Your task to perform on an android device: Search for a new highlighter Image 0: 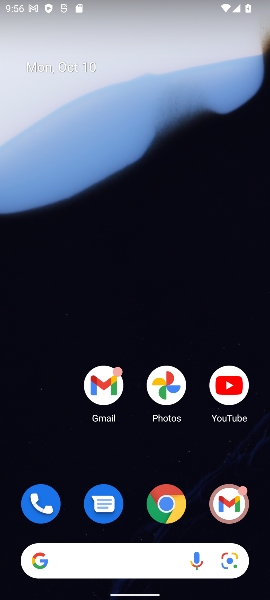
Step 0: click (165, 507)
Your task to perform on an android device: Search for a new highlighter Image 1: 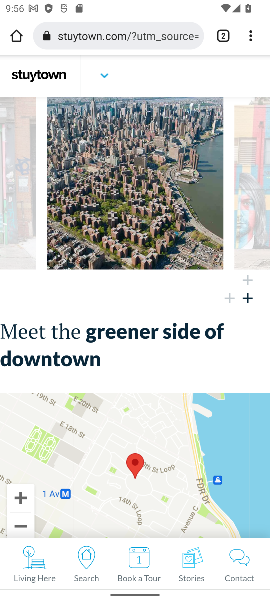
Step 1: click (99, 23)
Your task to perform on an android device: Search for a new highlighter Image 2: 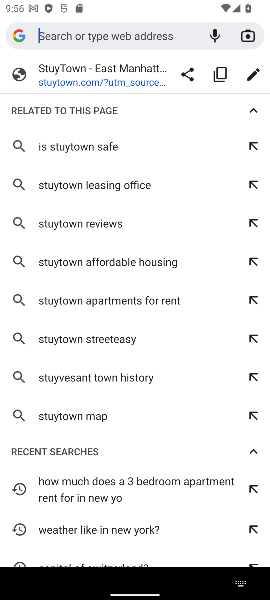
Step 2: type "new highlighter"
Your task to perform on an android device: Search for a new highlighter Image 3: 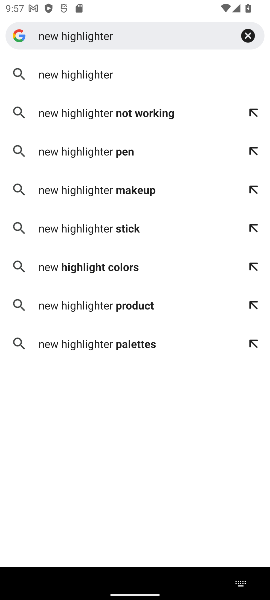
Step 3: click (68, 69)
Your task to perform on an android device: Search for a new highlighter Image 4: 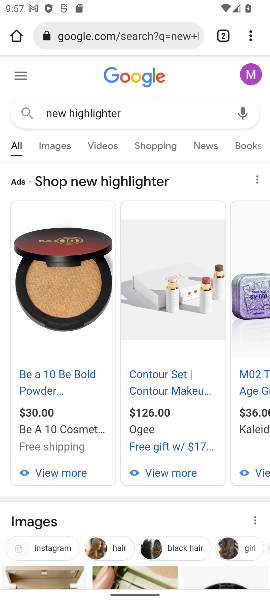
Step 4: task complete